Your task to perform on an android device: Go to Google maps Image 0: 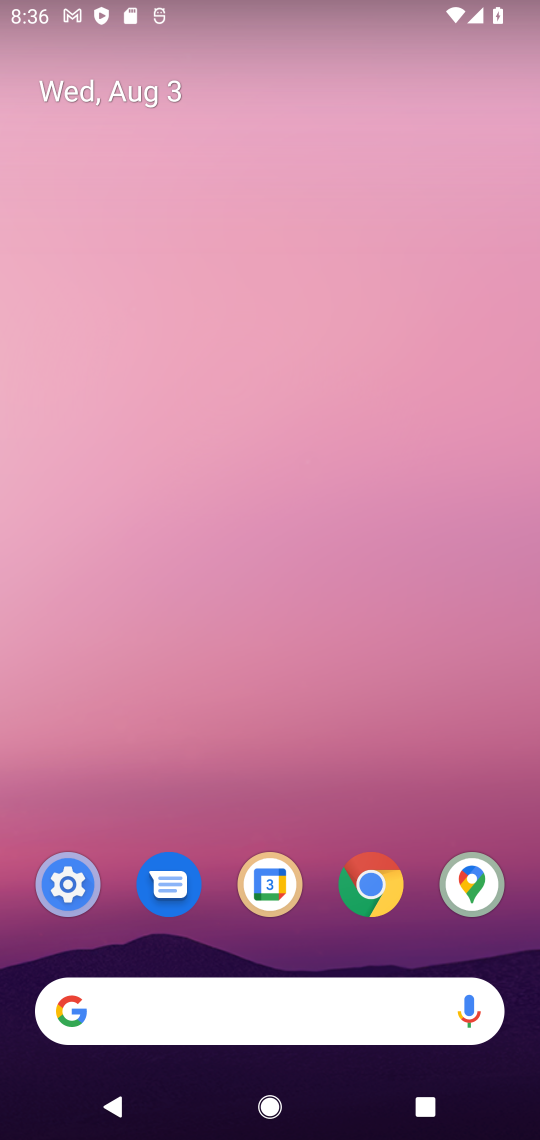
Step 0: drag from (367, 351) to (463, 97)
Your task to perform on an android device: Go to Google maps Image 1: 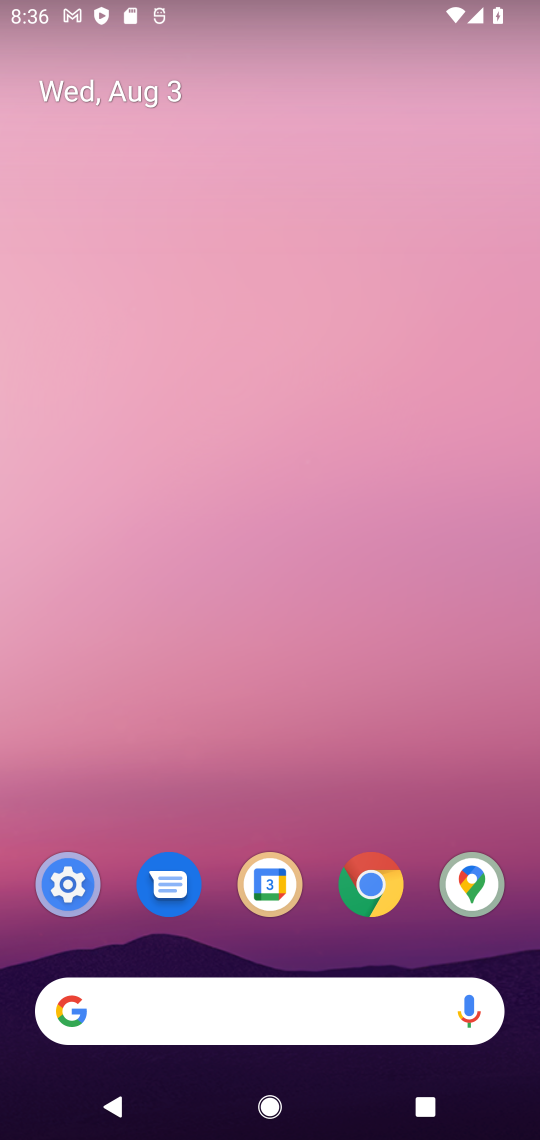
Step 1: drag from (233, 509) to (331, 107)
Your task to perform on an android device: Go to Google maps Image 2: 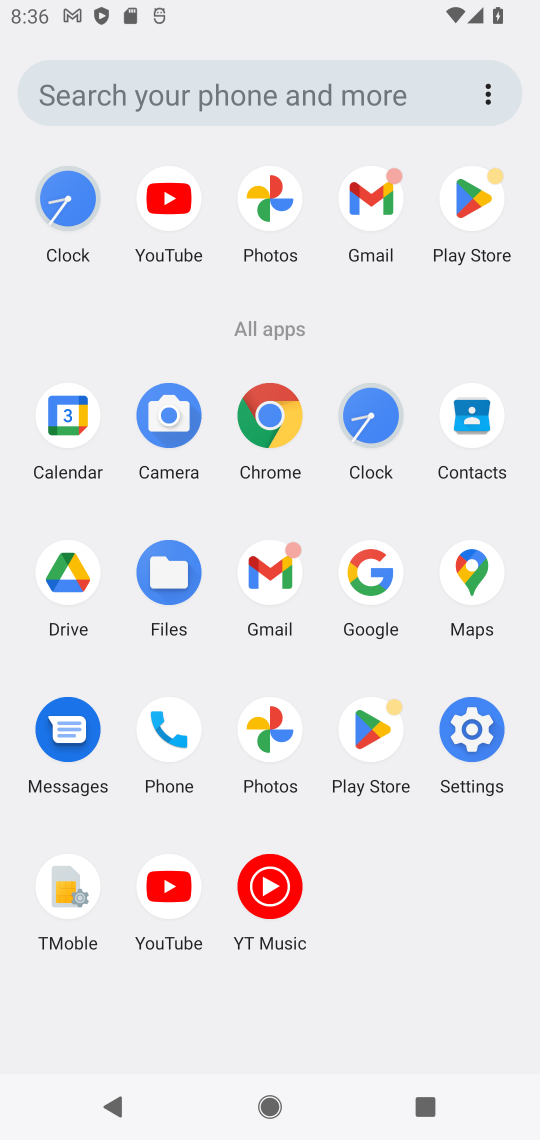
Step 2: click (471, 588)
Your task to perform on an android device: Go to Google maps Image 3: 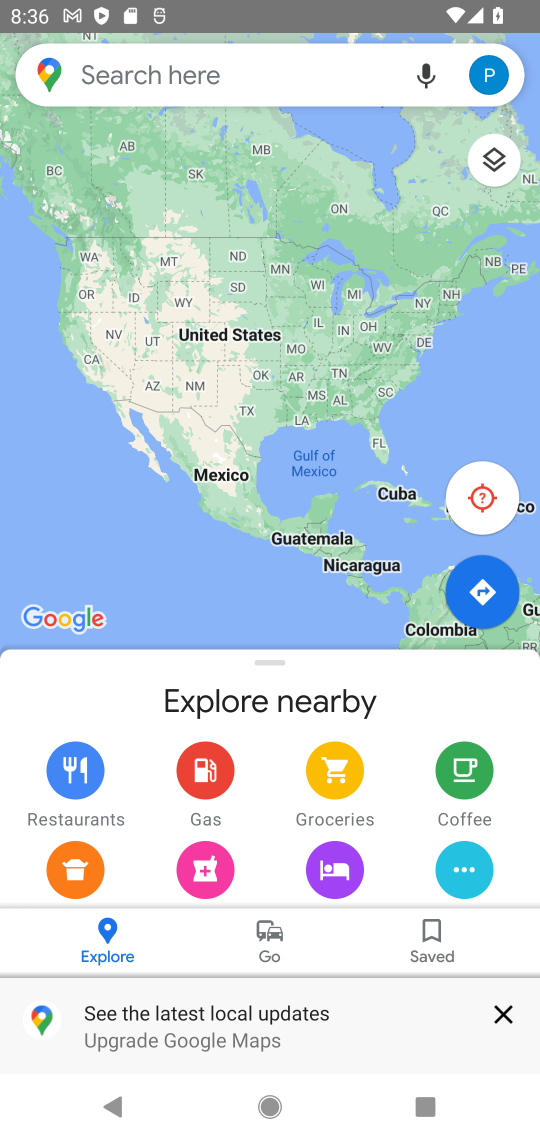
Step 3: task complete